Your task to perform on an android device: What's on my calendar tomorrow? Image 0: 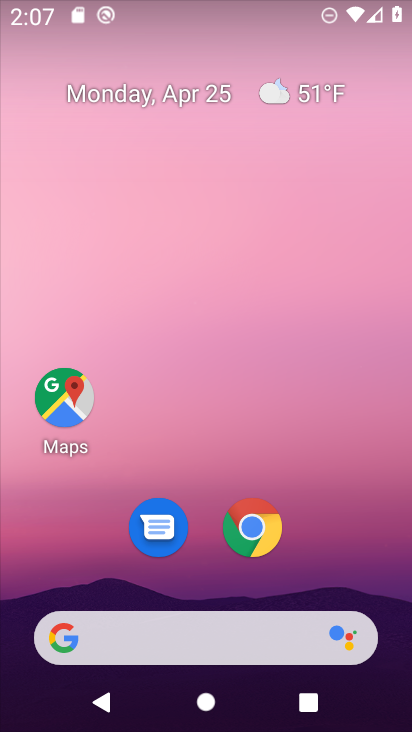
Step 0: drag from (335, 411) to (268, 3)
Your task to perform on an android device: What's on my calendar tomorrow? Image 1: 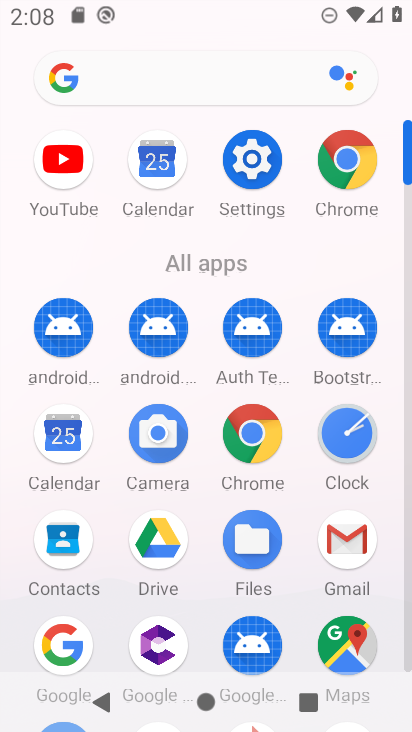
Step 1: click (59, 426)
Your task to perform on an android device: What's on my calendar tomorrow? Image 2: 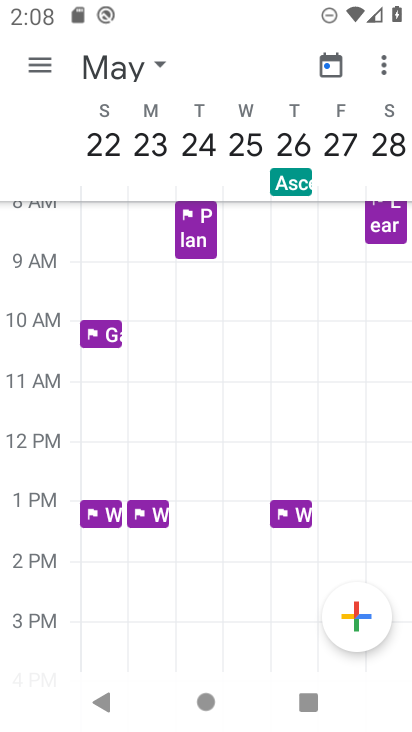
Step 2: click (30, 58)
Your task to perform on an android device: What's on my calendar tomorrow? Image 3: 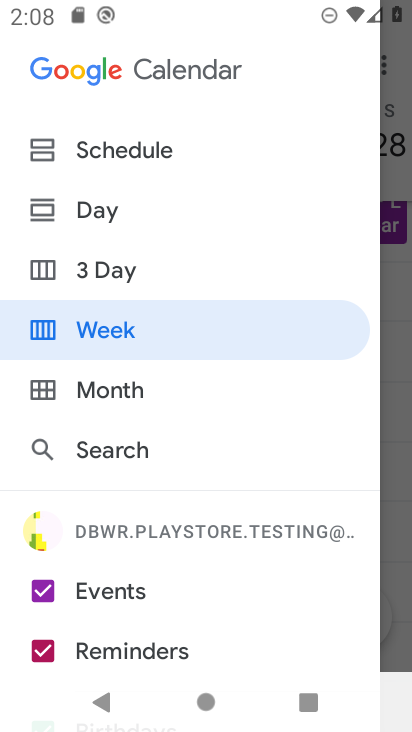
Step 3: click (393, 185)
Your task to perform on an android device: What's on my calendar tomorrow? Image 4: 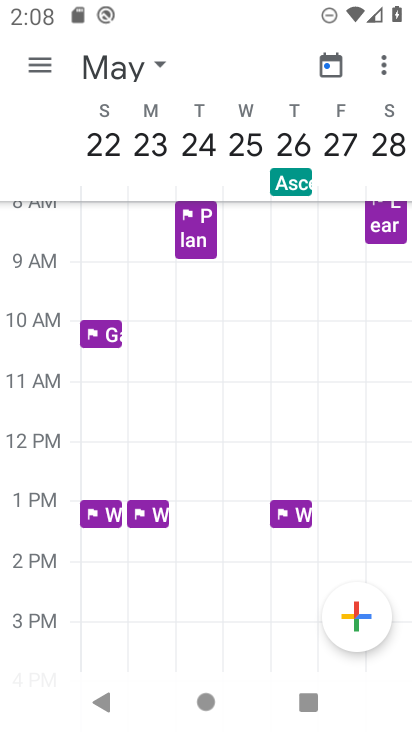
Step 4: click (330, 62)
Your task to perform on an android device: What's on my calendar tomorrow? Image 5: 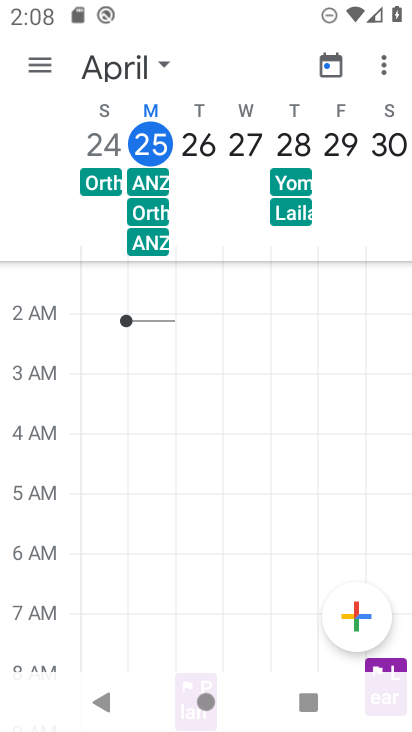
Step 5: click (193, 135)
Your task to perform on an android device: What's on my calendar tomorrow? Image 6: 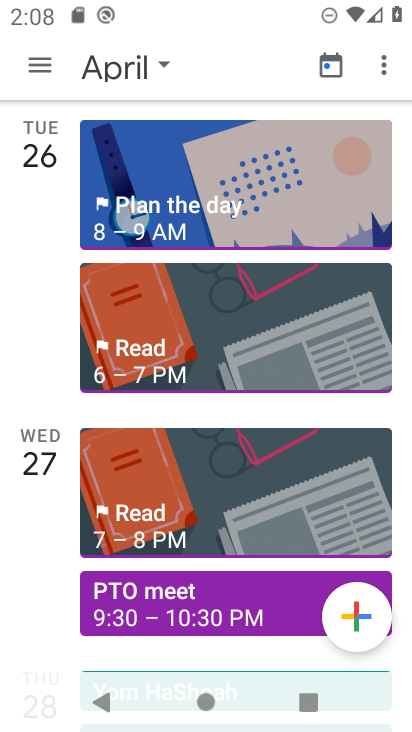
Step 6: click (54, 70)
Your task to perform on an android device: What's on my calendar tomorrow? Image 7: 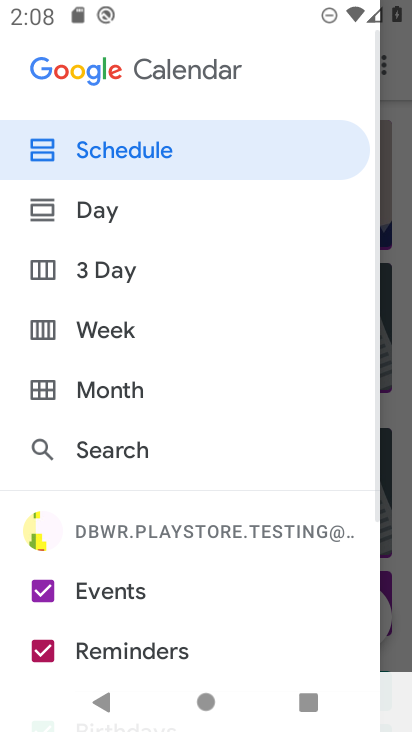
Step 7: click (132, 321)
Your task to perform on an android device: What's on my calendar tomorrow? Image 8: 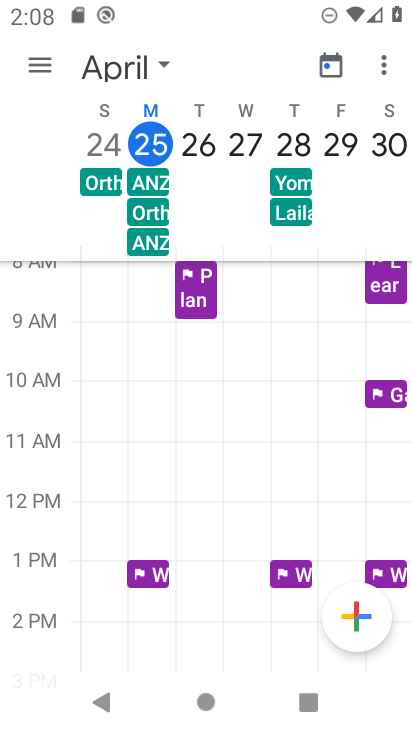
Step 8: task complete